Your task to perform on an android device: toggle data saver in the chrome app Image 0: 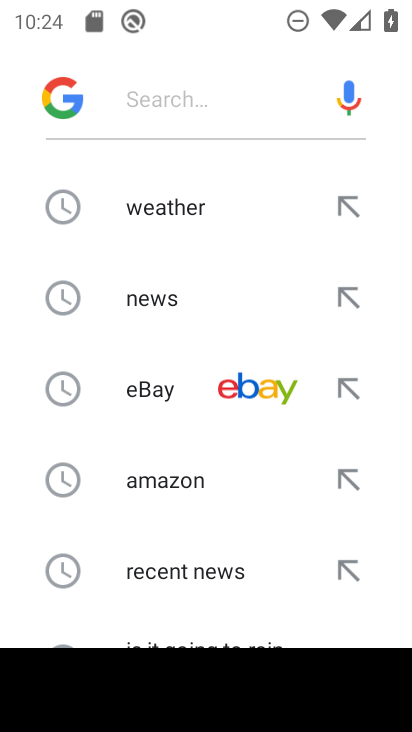
Step 0: press home button
Your task to perform on an android device: toggle data saver in the chrome app Image 1: 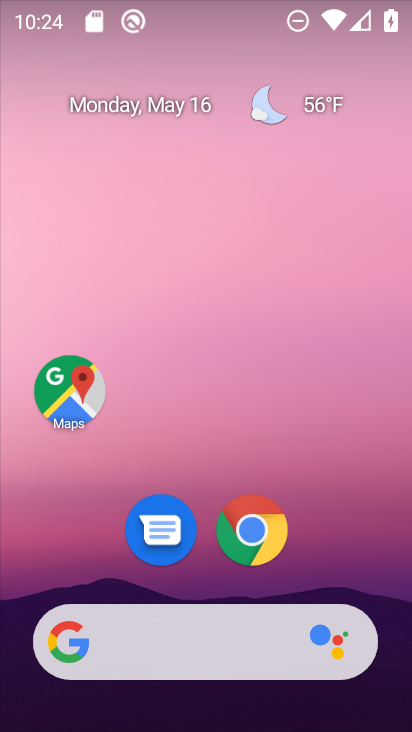
Step 1: drag from (314, 531) to (337, 281)
Your task to perform on an android device: toggle data saver in the chrome app Image 2: 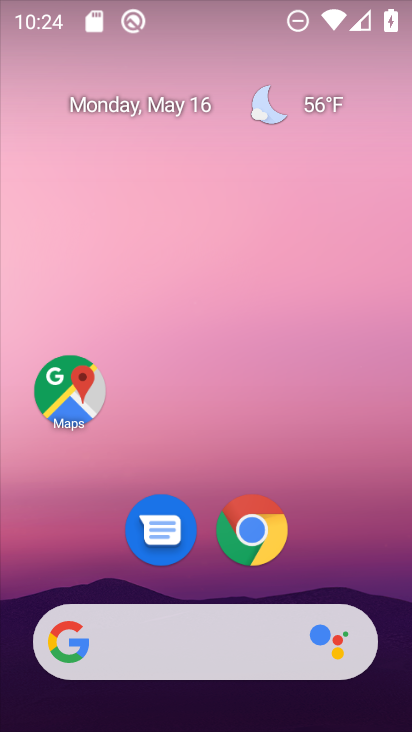
Step 2: click (261, 550)
Your task to perform on an android device: toggle data saver in the chrome app Image 3: 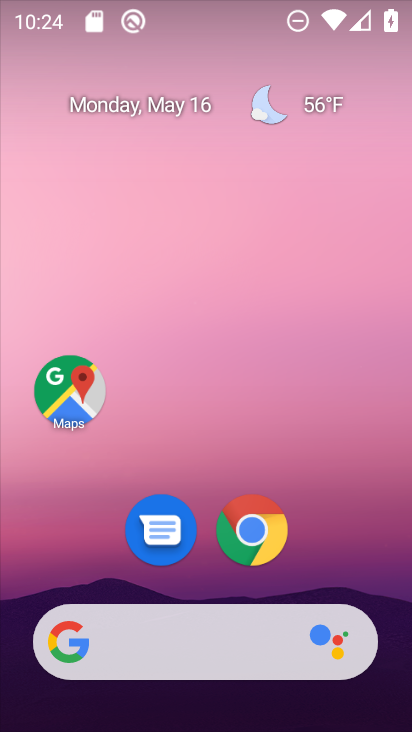
Step 3: click (262, 537)
Your task to perform on an android device: toggle data saver in the chrome app Image 4: 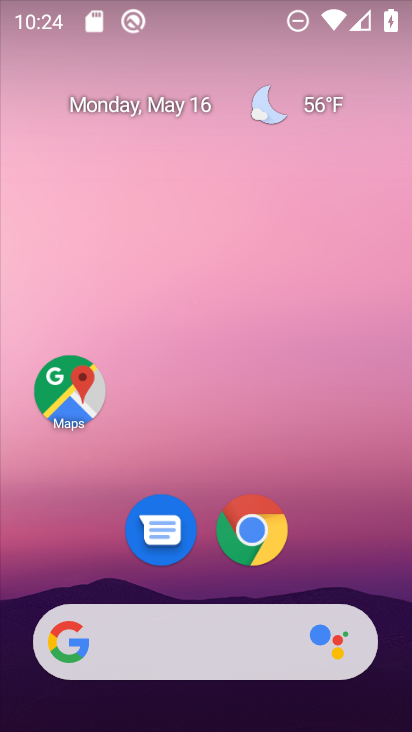
Step 4: drag from (337, 527) to (311, 84)
Your task to perform on an android device: toggle data saver in the chrome app Image 5: 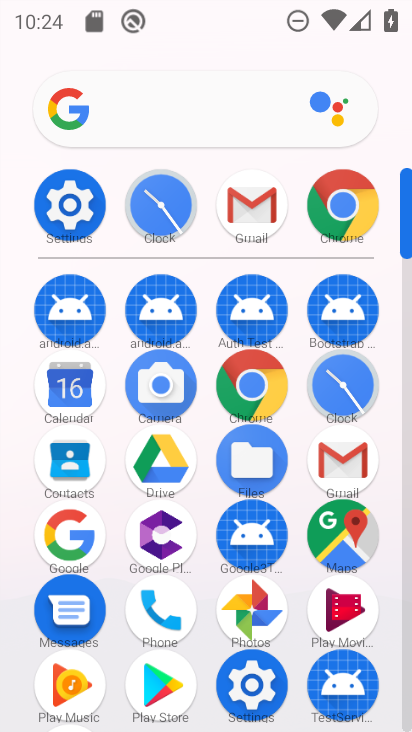
Step 5: click (267, 371)
Your task to perform on an android device: toggle data saver in the chrome app Image 6: 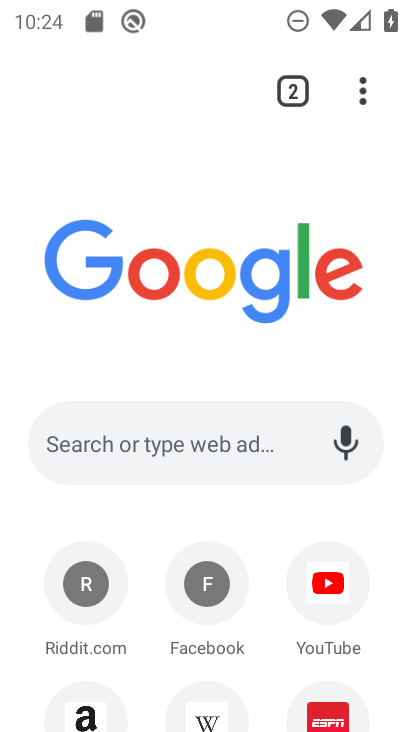
Step 6: click (369, 93)
Your task to perform on an android device: toggle data saver in the chrome app Image 7: 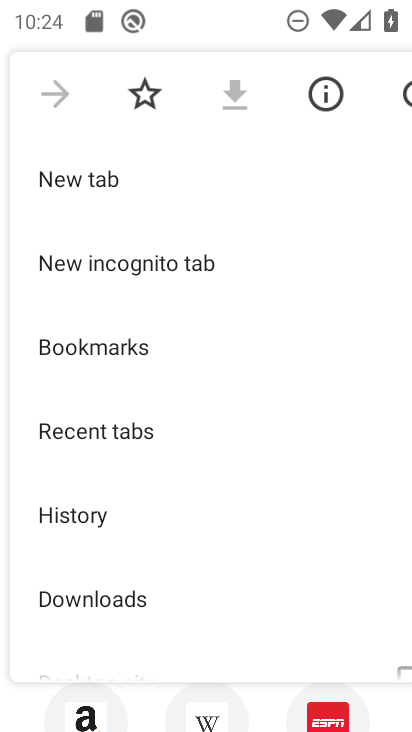
Step 7: drag from (242, 531) to (243, 455)
Your task to perform on an android device: toggle data saver in the chrome app Image 8: 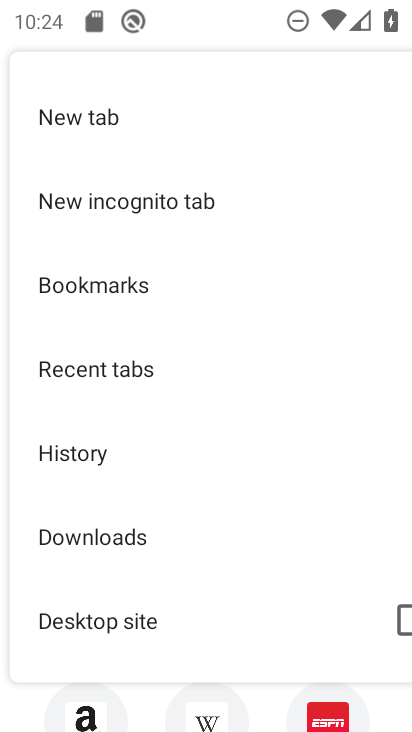
Step 8: drag from (230, 531) to (239, 432)
Your task to perform on an android device: toggle data saver in the chrome app Image 9: 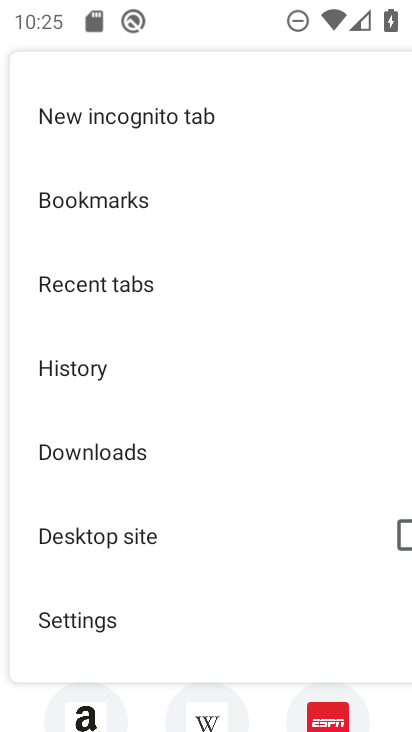
Step 9: drag from (241, 542) to (251, 489)
Your task to perform on an android device: toggle data saver in the chrome app Image 10: 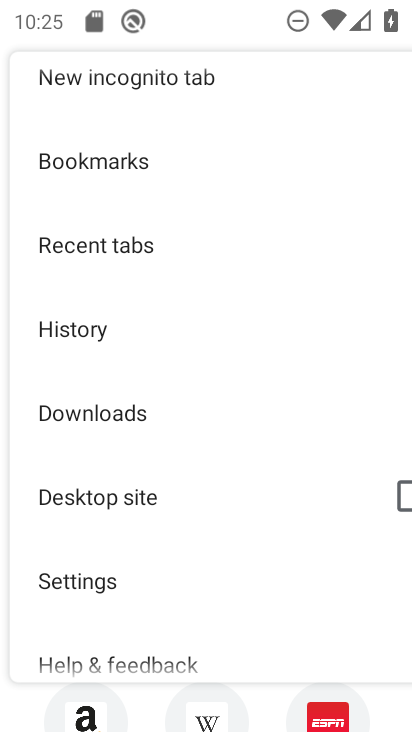
Step 10: drag from (278, 540) to (272, 430)
Your task to perform on an android device: toggle data saver in the chrome app Image 11: 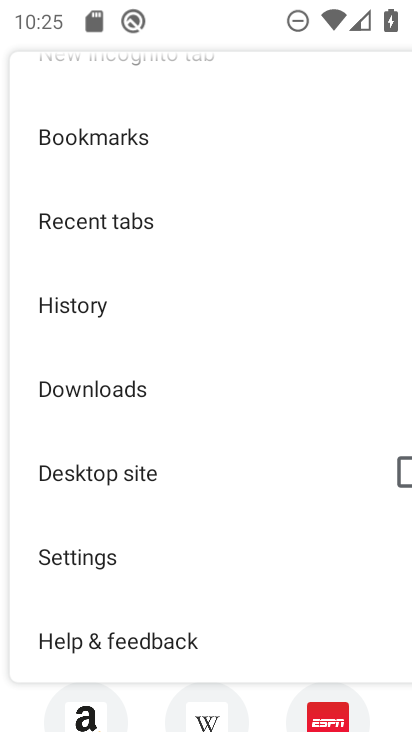
Step 11: drag from (260, 340) to (265, 465)
Your task to perform on an android device: toggle data saver in the chrome app Image 12: 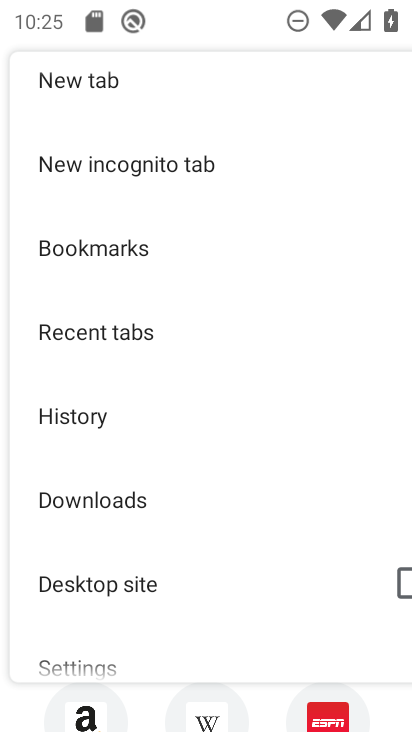
Step 12: drag from (269, 293) to (278, 397)
Your task to perform on an android device: toggle data saver in the chrome app Image 13: 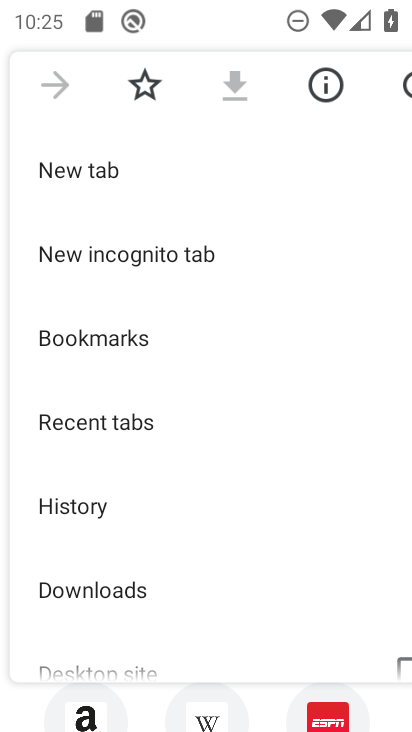
Step 13: drag from (292, 272) to (301, 447)
Your task to perform on an android device: toggle data saver in the chrome app Image 14: 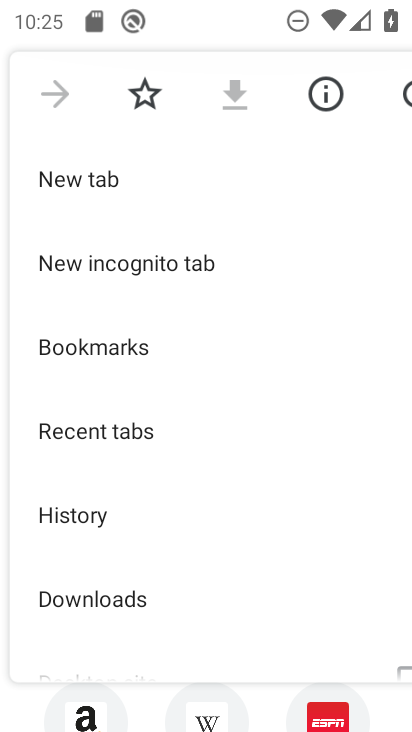
Step 14: drag from (267, 544) to (256, 380)
Your task to perform on an android device: toggle data saver in the chrome app Image 15: 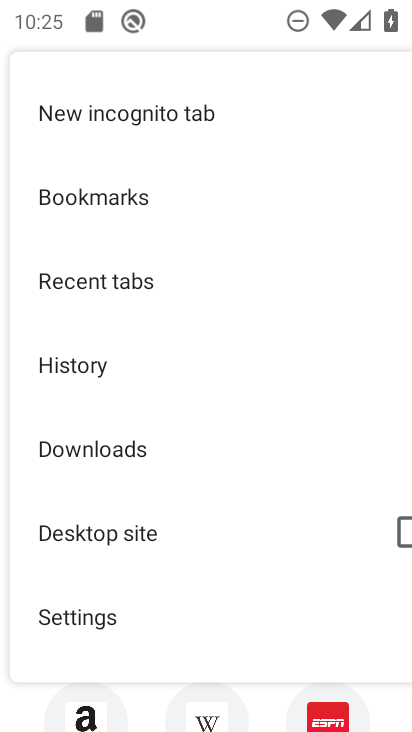
Step 15: drag from (229, 594) to (234, 437)
Your task to perform on an android device: toggle data saver in the chrome app Image 16: 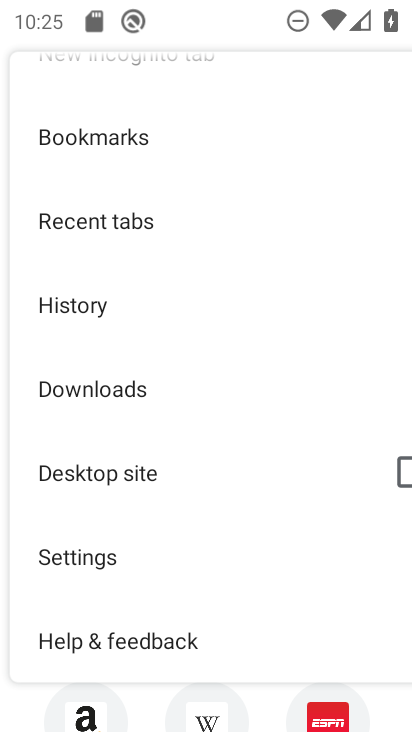
Step 16: click (132, 559)
Your task to perform on an android device: toggle data saver in the chrome app Image 17: 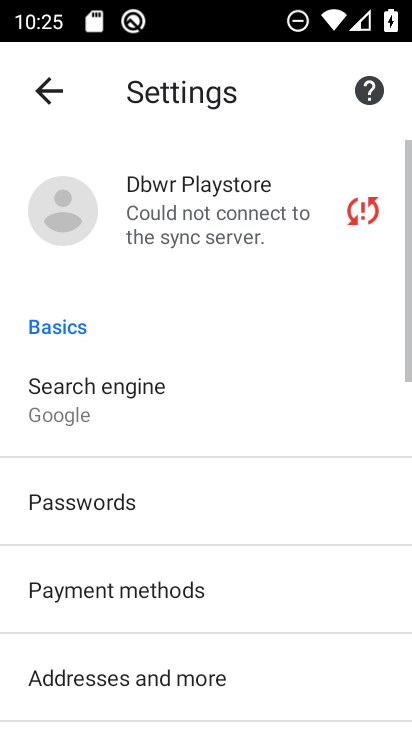
Step 17: drag from (267, 611) to (297, 467)
Your task to perform on an android device: toggle data saver in the chrome app Image 18: 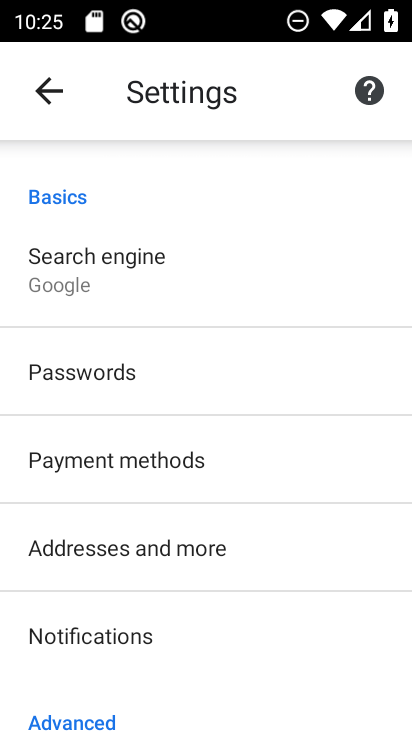
Step 18: drag from (323, 601) to (321, 516)
Your task to perform on an android device: toggle data saver in the chrome app Image 19: 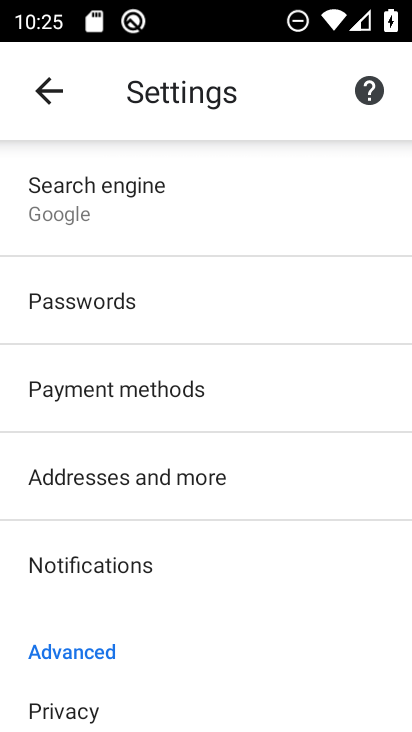
Step 19: drag from (307, 624) to (296, 506)
Your task to perform on an android device: toggle data saver in the chrome app Image 20: 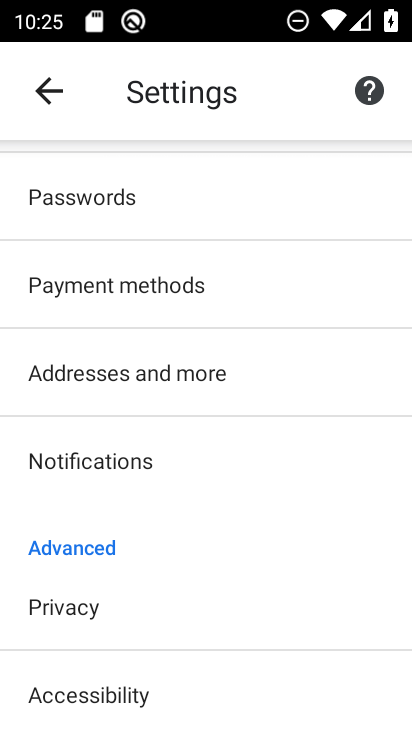
Step 20: drag from (292, 617) to (303, 555)
Your task to perform on an android device: toggle data saver in the chrome app Image 21: 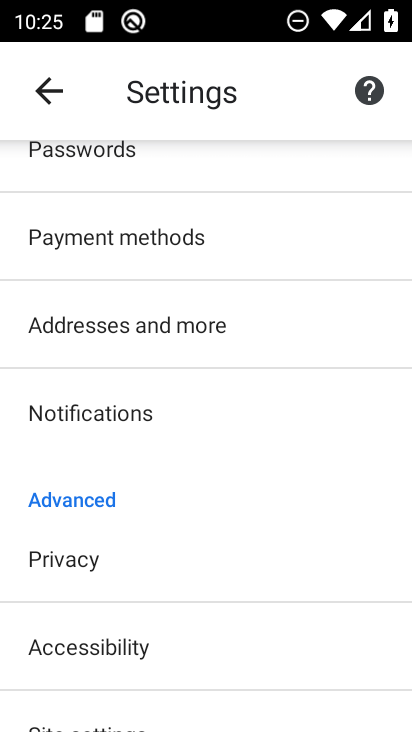
Step 21: drag from (295, 598) to (287, 506)
Your task to perform on an android device: toggle data saver in the chrome app Image 22: 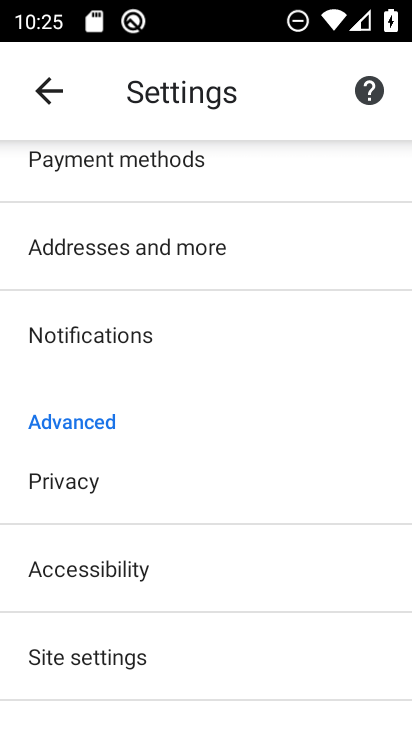
Step 22: drag from (281, 600) to (292, 563)
Your task to perform on an android device: toggle data saver in the chrome app Image 23: 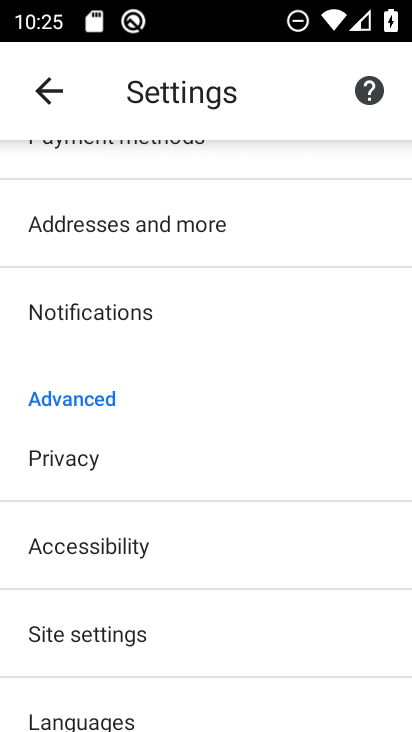
Step 23: drag from (288, 596) to (287, 483)
Your task to perform on an android device: toggle data saver in the chrome app Image 24: 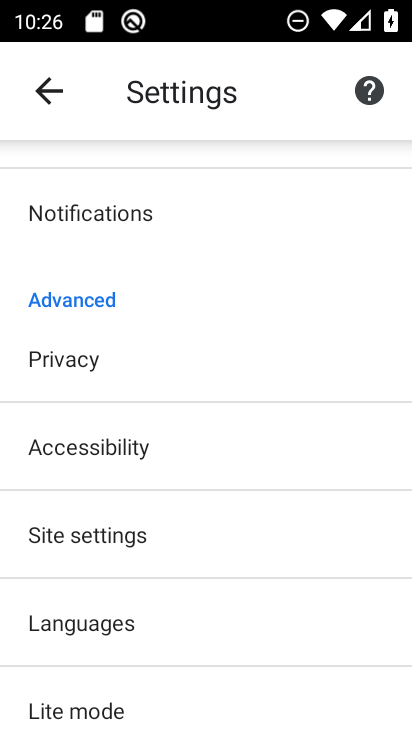
Step 24: drag from (274, 557) to (271, 485)
Your task to perform on an android device: toggle data saver in the chrome app Image 25: 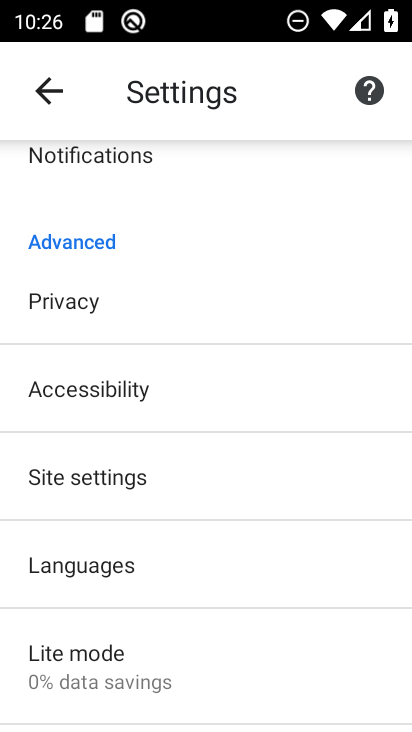
Step 25: click (145, 651)
Your task to perform on an android device: toggle data saver in the chrome app Image 26: 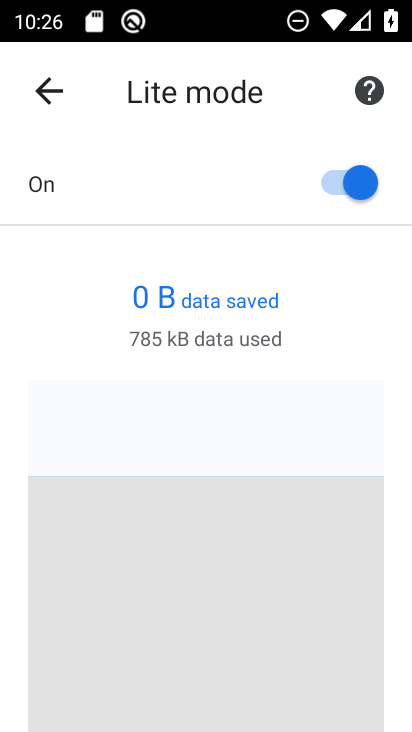
Step 26: click (342, 183)
Your task to perform on an android device: toggle data saver in the chrome app Image 27: 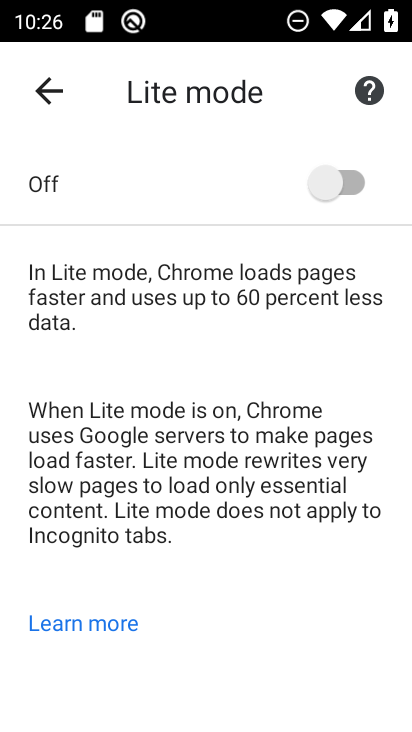
Step 27: click (318, 197)
Your task to perform on an android device: toggle data saver in the chrome app Image 28: 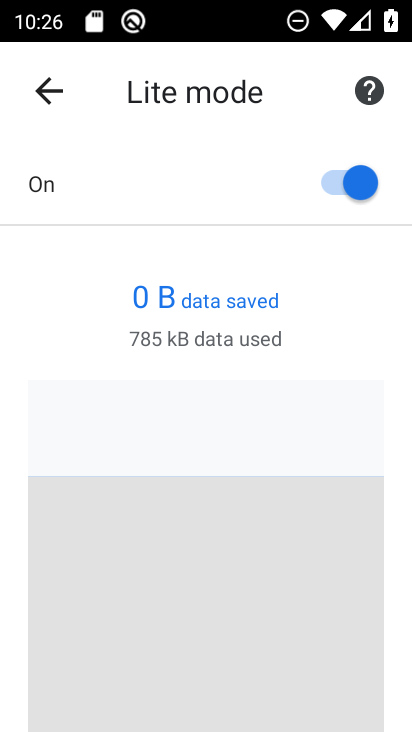
Step 28: task complete